Your task to perform on an android device: Open the stopwatch Image 0: 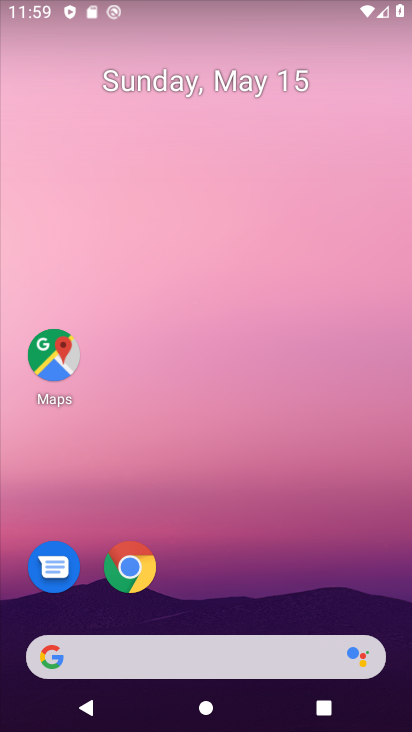
Step 0: drag from (304, 606) to (275, 117)
Your task to perform on an android device: Open the stopwatch Image 1: 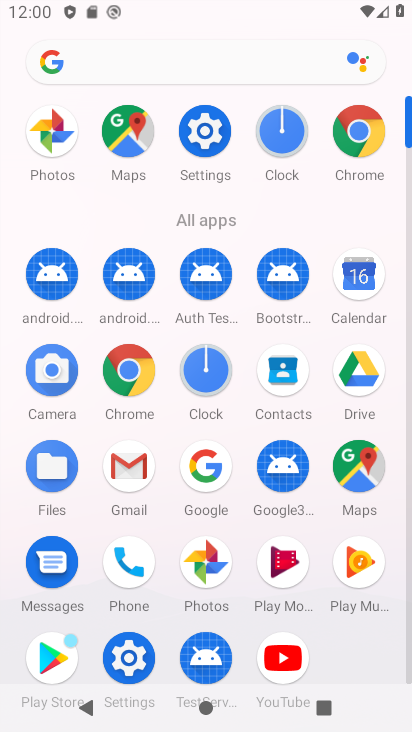
Step 1: click (274, 130)
Your task to perform on an android device: Open the stopwatch Image 2: 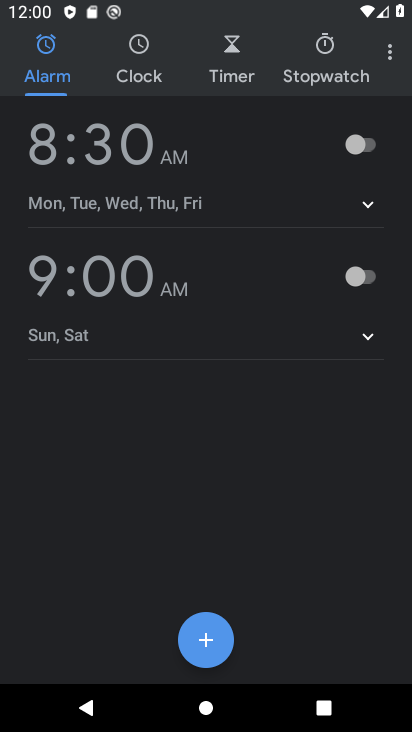
Step 2: click (335, 77)
Your task to perform on an android device: Open the stopwatch Image 3: 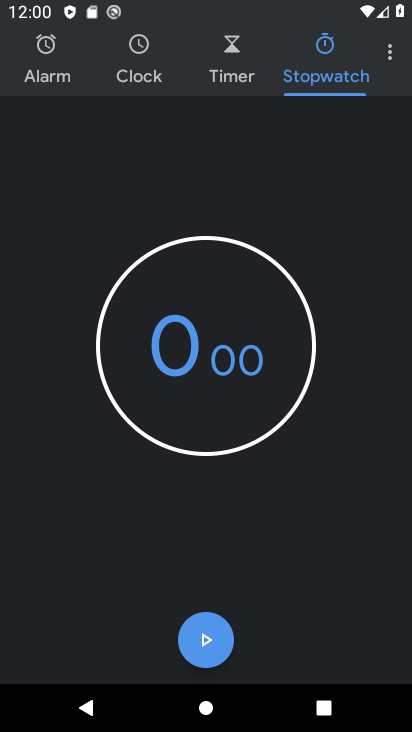
Step 3: task complete